Your task to perform on an android device: check the backup settings in the google photos Image 0: 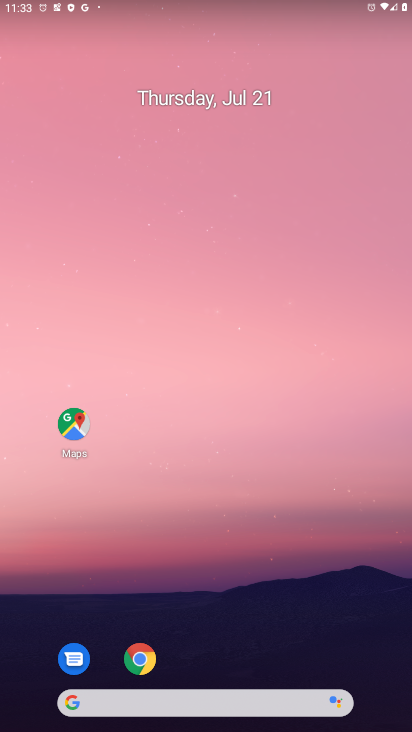
Step 0: drag from (201, 708) to (234, 217)
Your task to perform on an android device: check the backup settings in the google photos Image 1: 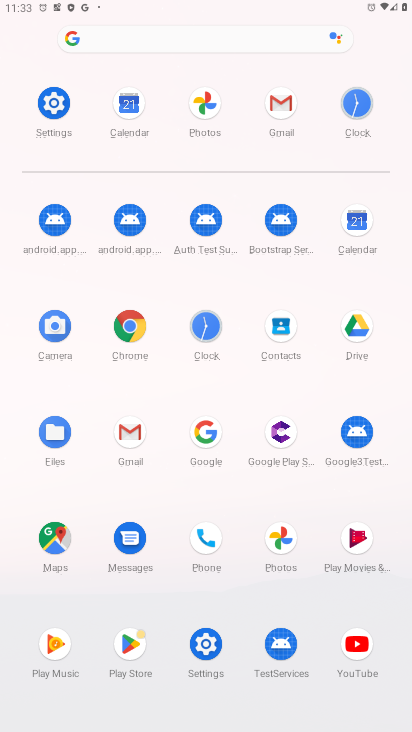
Step 1: click (280, 537)
Your task to perform on an android device: check the backup settings in the google photos Image 2: 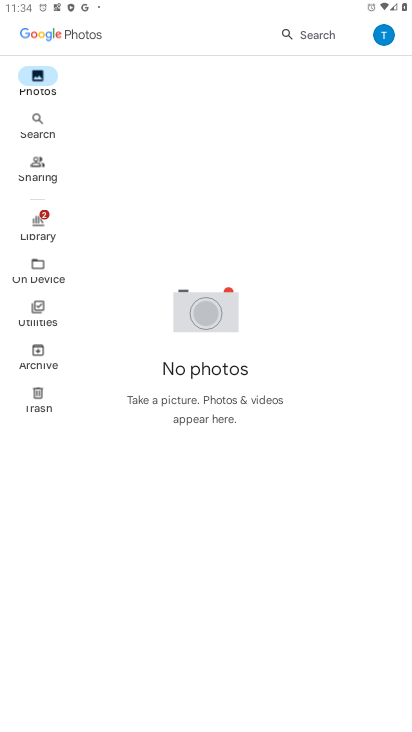
Step 2: click (387, 33)
Your task to perform on an android device: check the backup settings in the google photos Image 3: 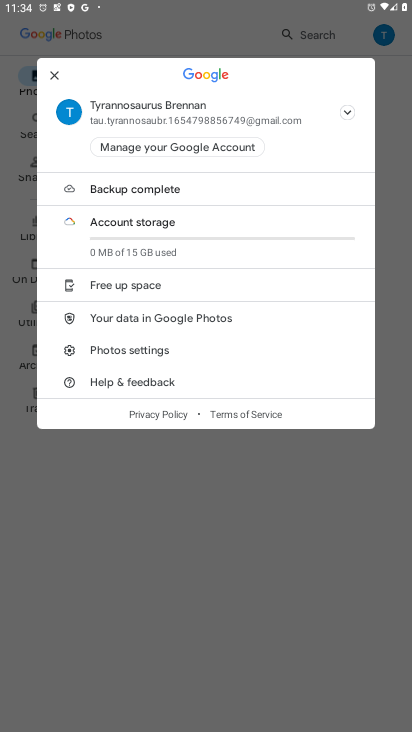
Step 3: click (116, 349)
Your task to perform on an android device: check the backup settings in the google photos Image 4: 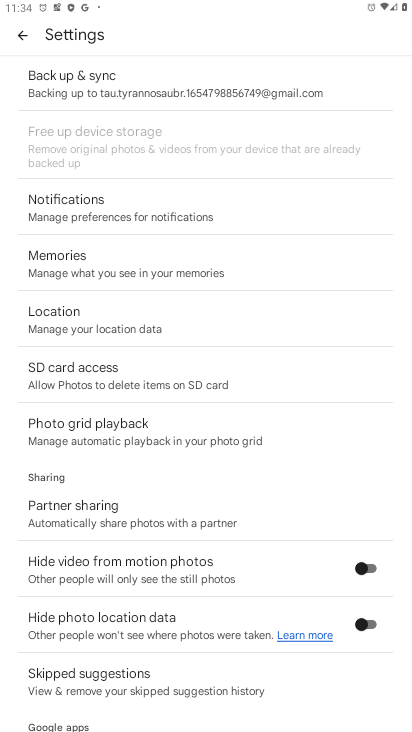
Step 4: click (164, 85)
Your task to perform on an android device: check the backup settings in the google photos Image 5: 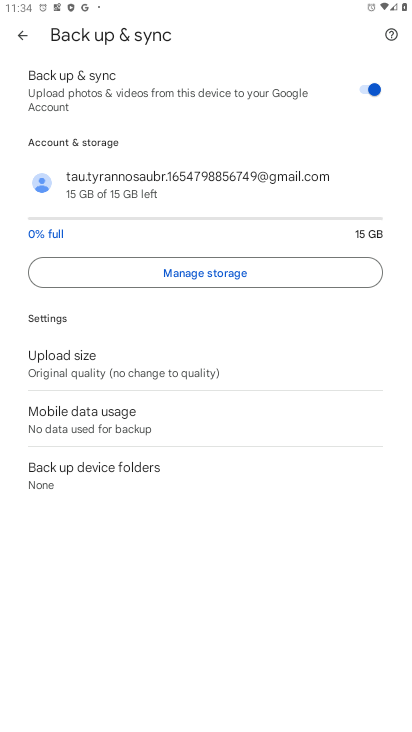
Step 5: task complete